Your task to perform on an android device: clear all cookies in the chrome app Image 0: 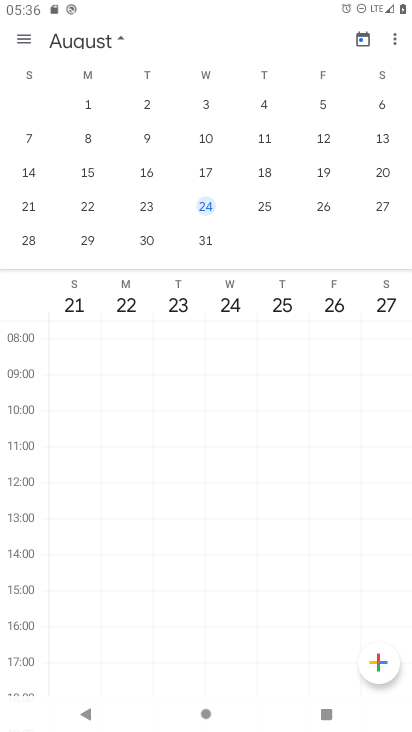
Step 0: press home button
Your task to perform on an android device: clear all cookies in the chrome app Image 1: 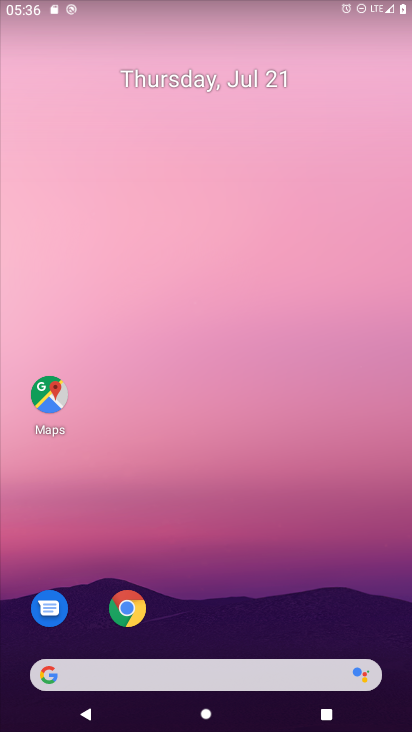
Step 1: drag from (339, 664) to (349, 136)
Your task to perform on an android device: clear all cookies in the chrome app Image 2: 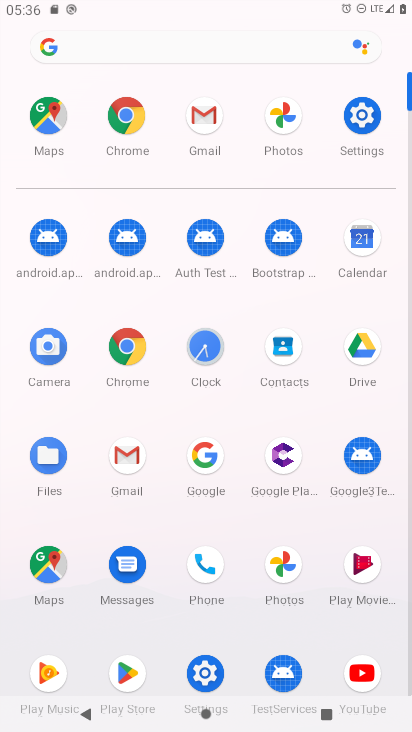
Step 2: click (135, 349)
Your task to perform on an android device: clear all cookies in the chrome app Image 3: 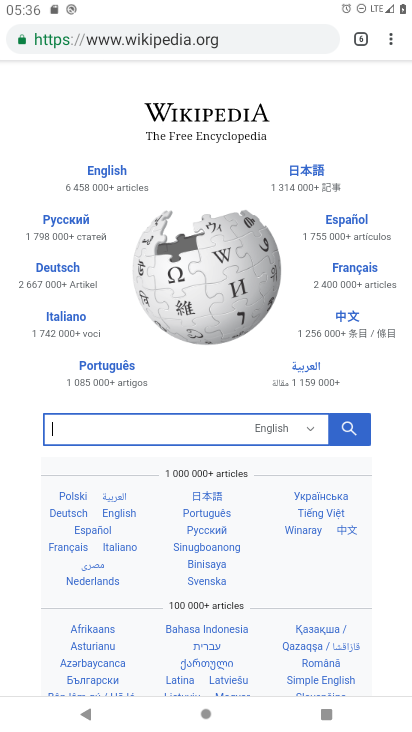
Step 3: drag from (392, 41) to (269, 460)
Your task to perform on an android device: clear all cookies in the chrome app Image 4: 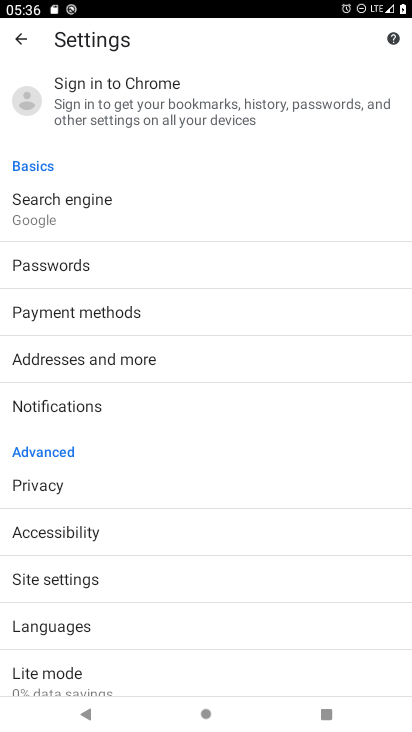
Step 4: click (75, 480)
Your task to perform on an android device: clear all cookies in the chrome app Image 5: 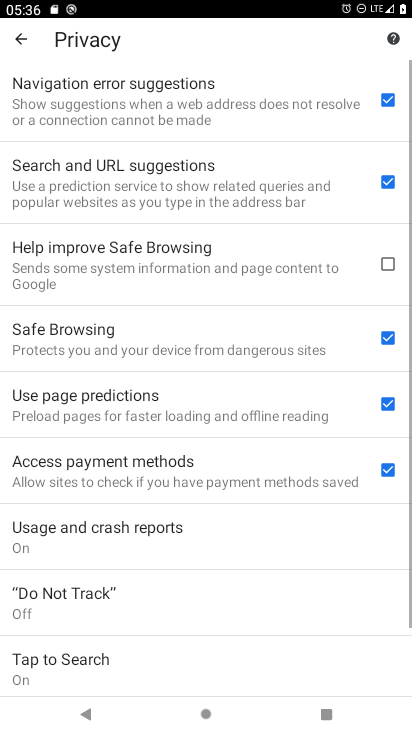
Step 5: drag from (102, 590) to (163, 263)
Your task to perform on an android device: clear all cookies in the chrome app Image 6: 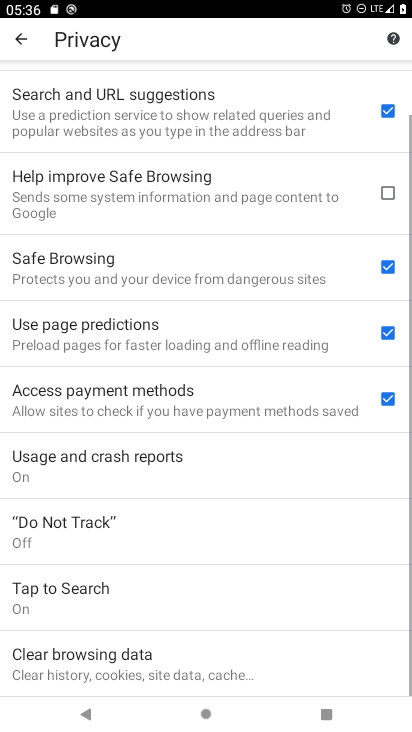
Step 6: click (150, 659)
Your task to perform on an android device: clear all cookies in the chrome app Image 7: 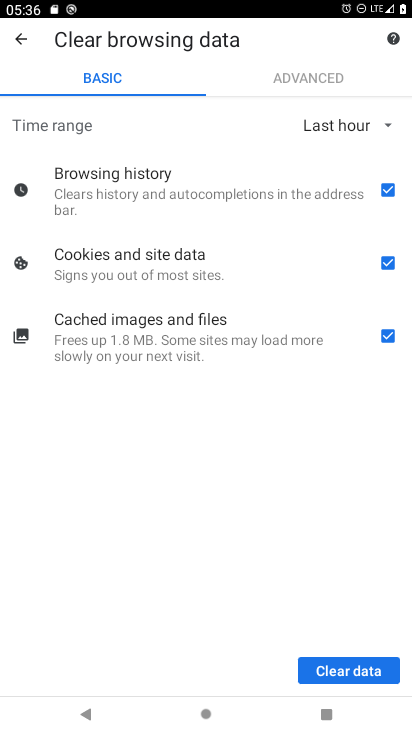
Step 7: click (351, 673)
Your task to perform on an android device: clear all cookies in the chrome app Image 8: 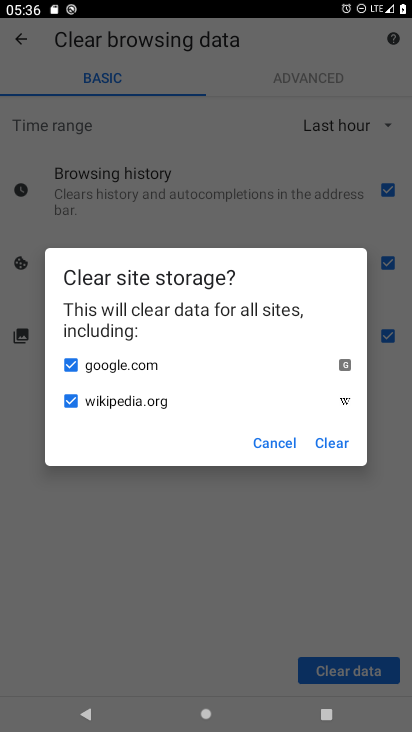
Step 8: click (328, 438)
Your task to perform on an android device: clear all cookies in the chrome app Image 9: 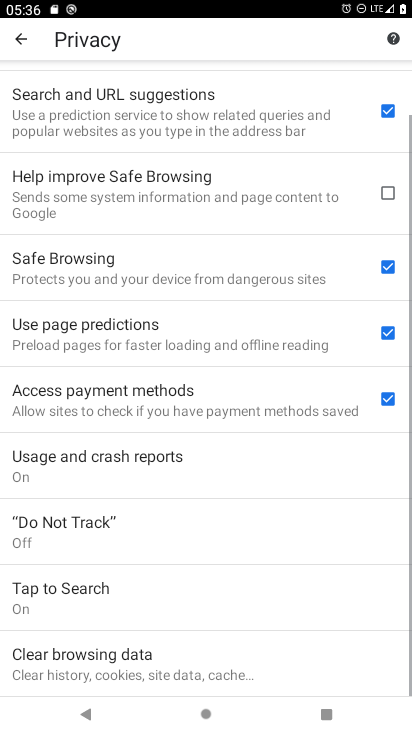
Step 9: task complete